Your task to perform on an android device: Open privacy settings Image 0: 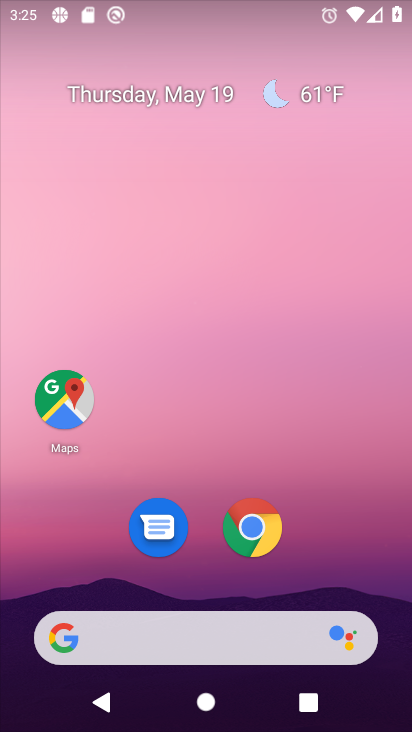
Step 0: drag from (234, 505) to (275, 4)
Your task to perform on an android device: Open privacy settings Image 1: 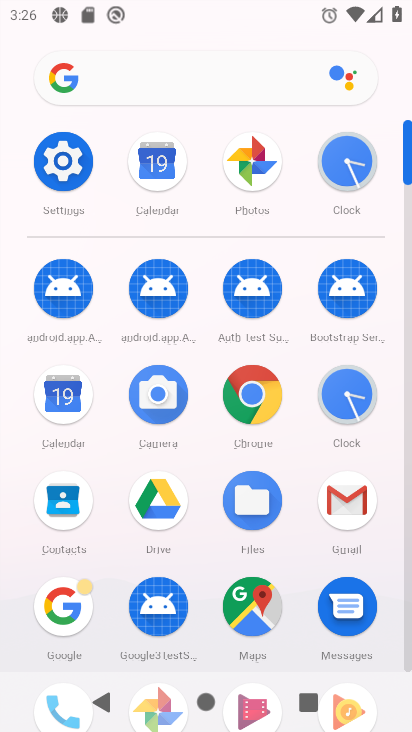
Step 1: click (64, 174)
Your task to perform on an android device: Open privacy settings Image 2: 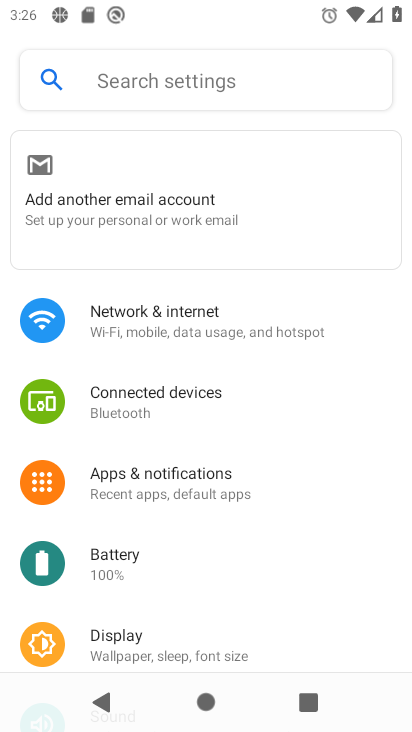
Step 2: drag from (145, 623) to (280, 160)
Your task to perform on an android device: Open privacy settings Image 3: 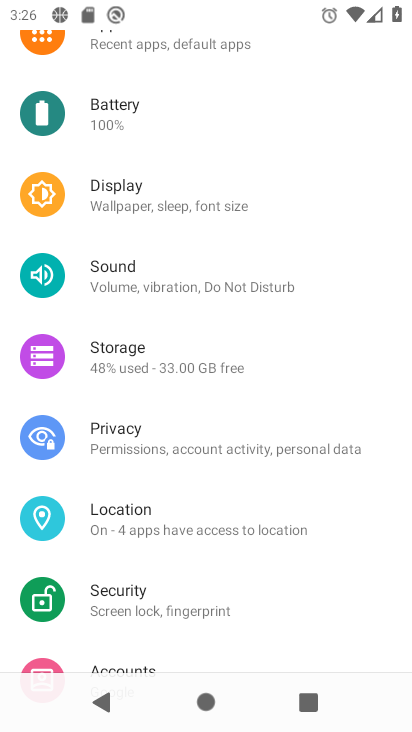
Step 3: click (159, 434)
Your task to perform on an android device: Open privacy settings Image 4: 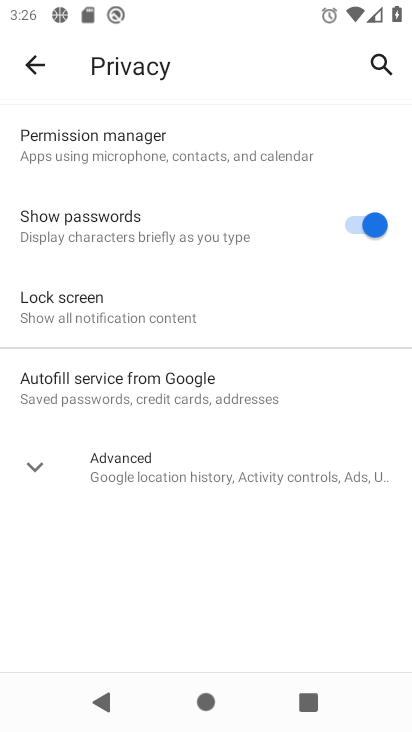
Step 4: task complete